Your task to perform on an android device: turn vacation reply on in the gmail app Image 0: 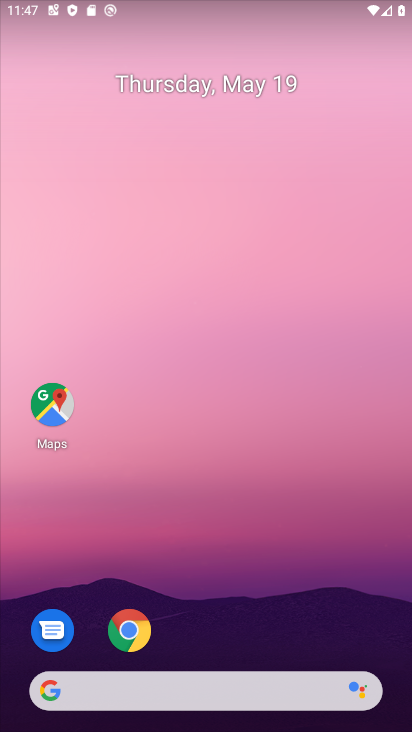
Step 0: drag from (262, 561) to (227, 71)
Your task to perform on an android device: turn vacation reply on in the gmail app Image 1: 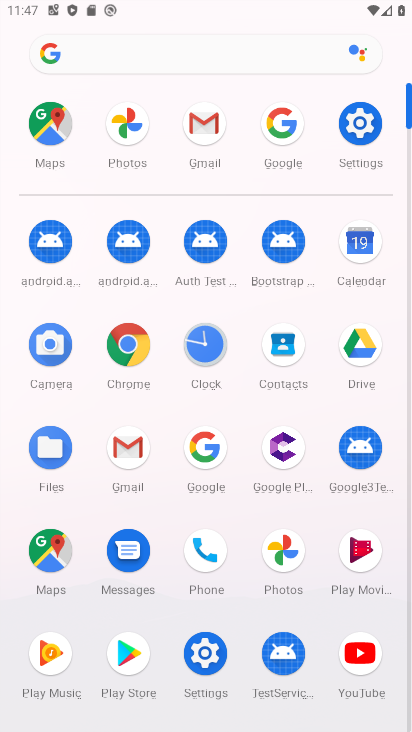
Step 1: click (201, 123)
Your task to perform on an android device: turn vacation reply on in the gmail app Image 2: 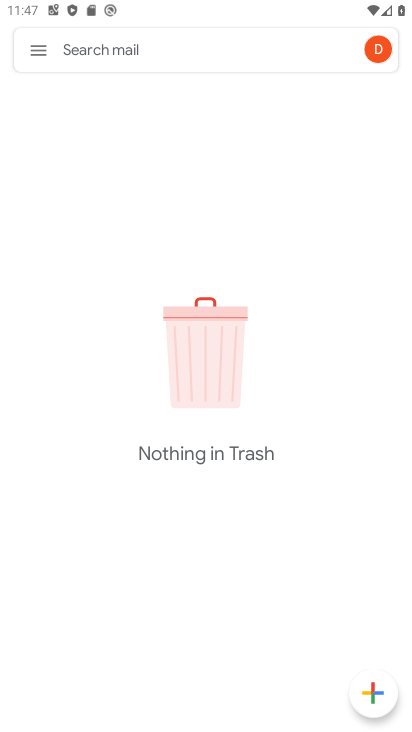
Step 2: click (34, 53)
Your task to perform on an android device: turn vacation reply on in the gmail app Image 3: 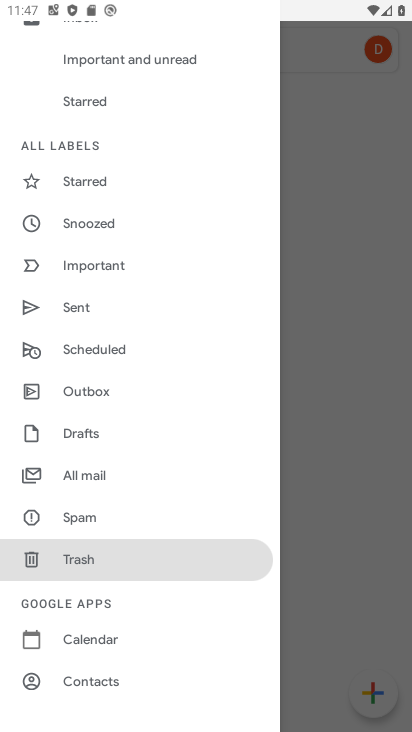
Step 3: drag from (128, 434) to (184, 330)
Your task to perform on an android device: turn vacation reply on in the gmail app Image 4: 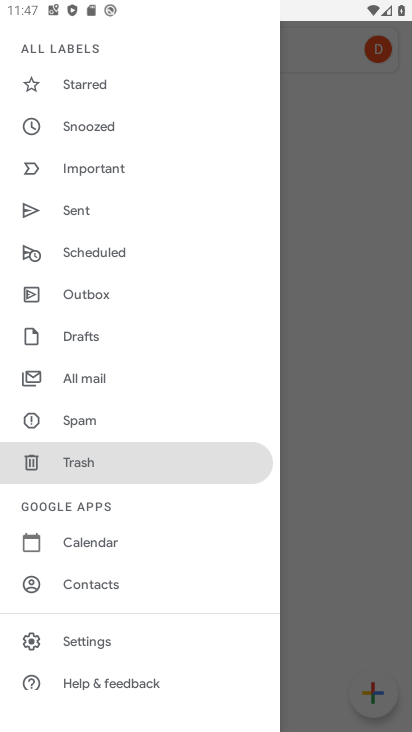
Step 4: drag from (135, 588) to (188, 506)
Your task to perform on an android device: turn vacation reply on in the gmail app Image 5: 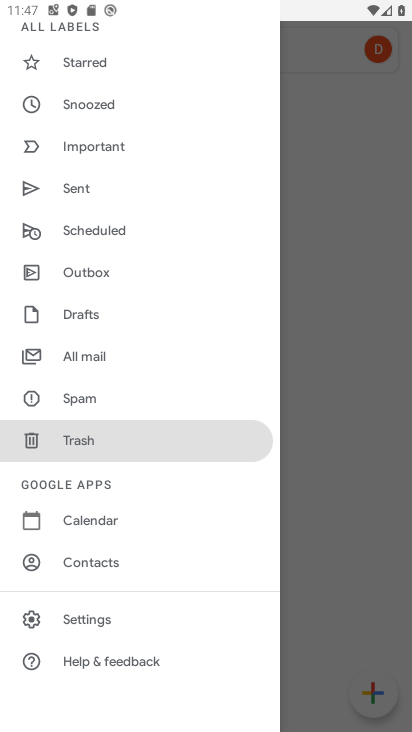
Step 5: click (91, 618)
Your task to perform on an android device: turn vacation reply on in the gmail app Image 6: 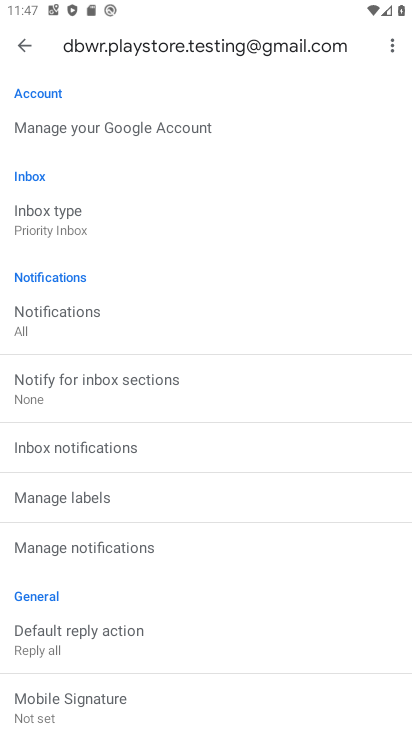
Step 6: drag from (130, 599) to (177, 502)
Your task to perform on an android device: turn vacation reply on in the gmail app Image 7: 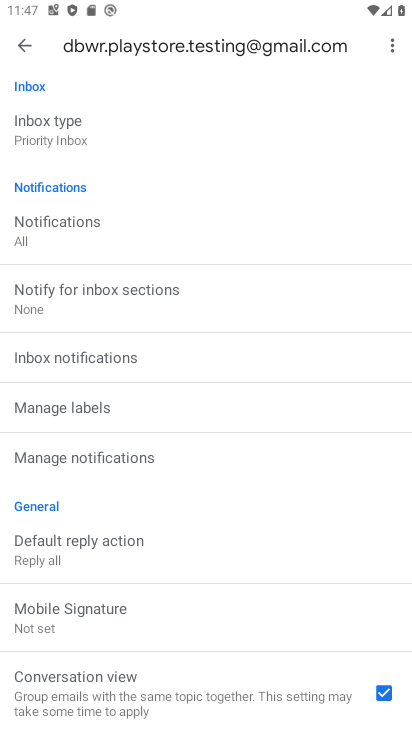
Step 7: drag from (112, 616) to (162, 524)
Your task to perform on an android device: turn vacation reply on in the gmail app Image 8: 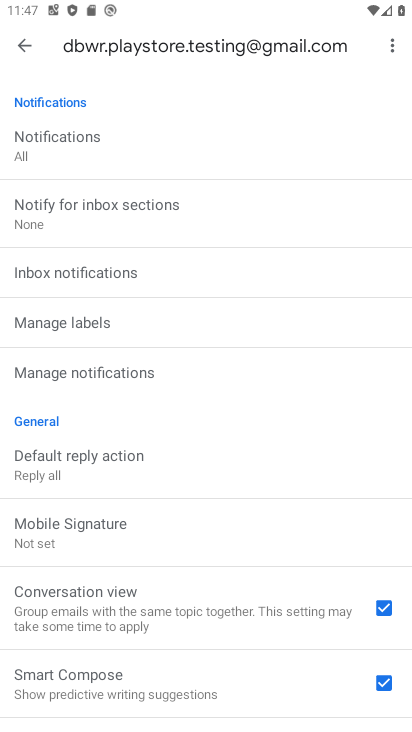
Step 8: drag from (125, 617) to (171, 544)
Your task to perform on an android device: turn vacation reply on in the gmail app Image 9: 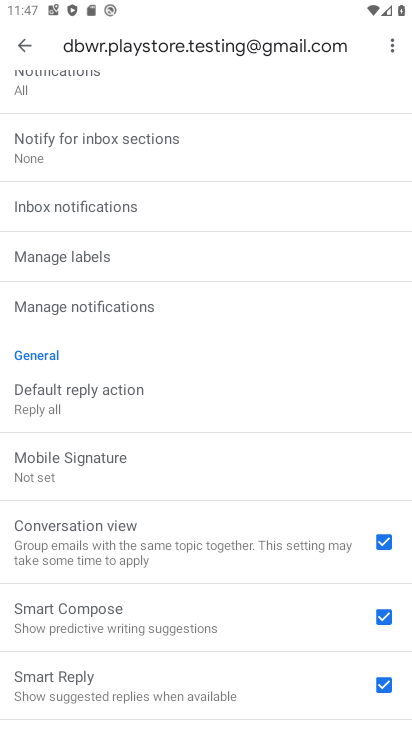
Step 9: drag from (108, 627) to (154, 535)
Your task to perform on an android device: turn vacation reply on in the gmail app Image 10: 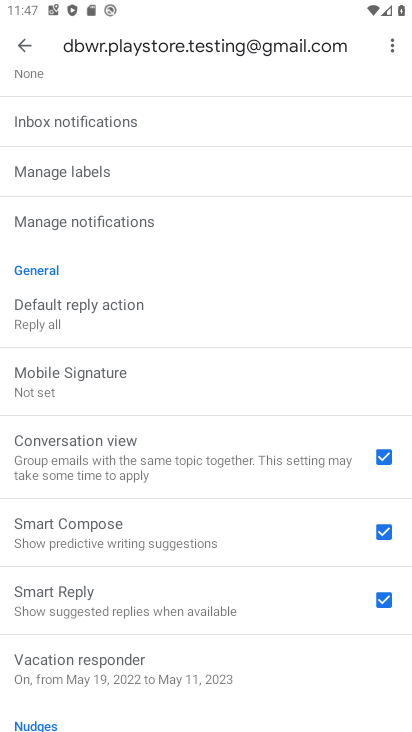
Step 10: drag from (125, 607) to (172, 528)
Your task to perform on an android device: turn vacation reply on in the gmail app Image 11: 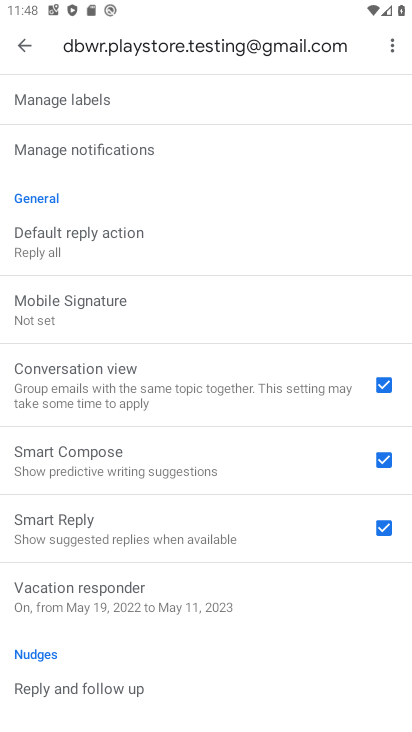
Step 11: click (117, 584)
Your task to perform on an android device: turn vacation reply on in the gmail app Image 12: 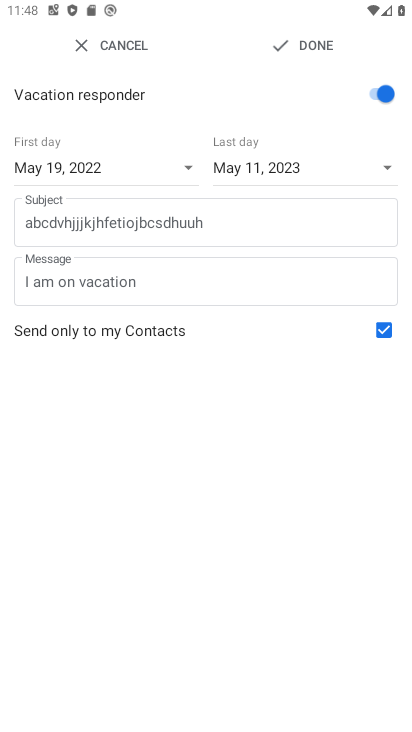
Step 12: task complete